Your task to perform on an android device: turn off data saver in the chrome app Image 0: 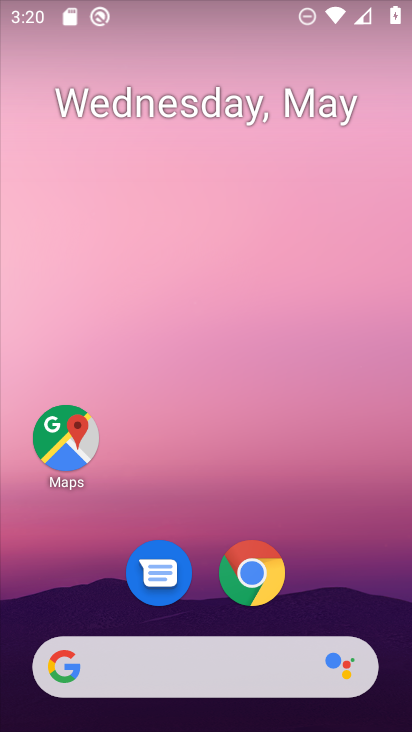
Step 0: click (243, 589)
Your task to perform on an android device: turn off data saver in the chrome app Image 1: 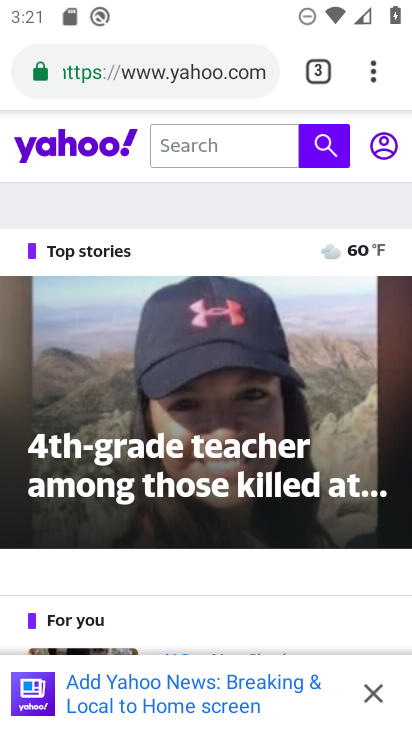
Step 1: click (372, 78)
Your task to perform on an android device: turn off data saver in the chrome app Image 2: 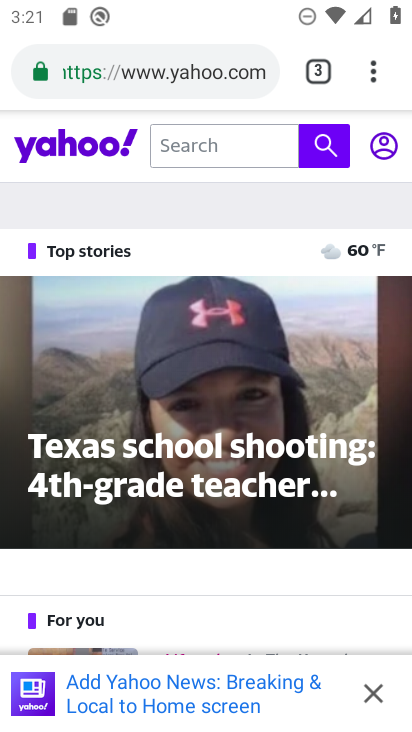
Step 2: click (383, 74)
Your task to perform on an android device: turn off data saver in the chrome app Image 3: 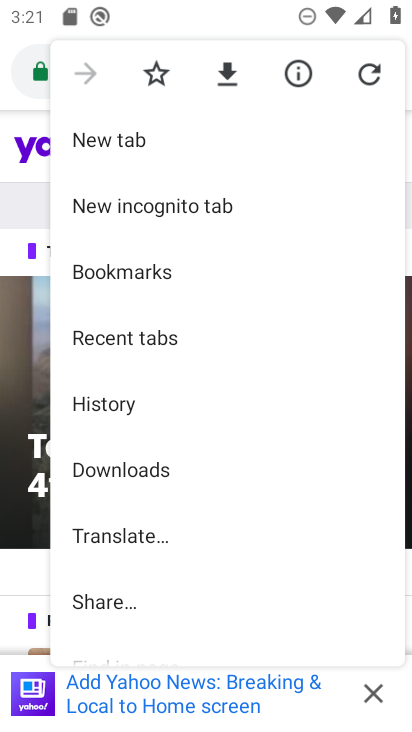
Step 3: drag from (158, 186) to (168, 128)
Your task to perform on an android device: turn off data saver in the chrome app Image 4: 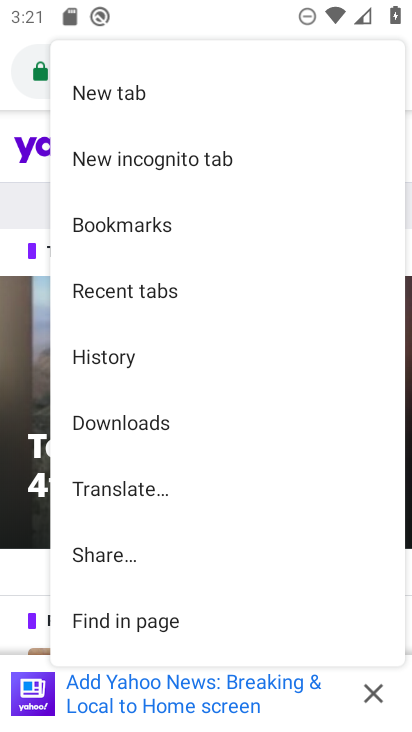
Step 4: drag from (132, 564) to (143, 174)
Your task to perform on an android device: turn off data saver in the chrome app Image 5: 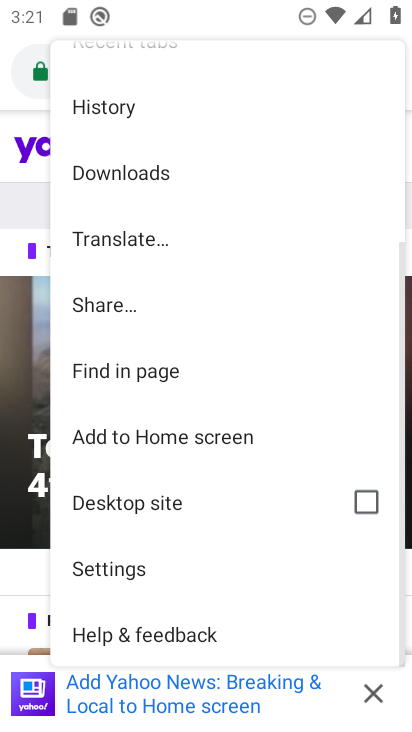
Step 5: click (159, 557)
Your task to perform on an android device: turn off data saver in the chrome app Image 6: 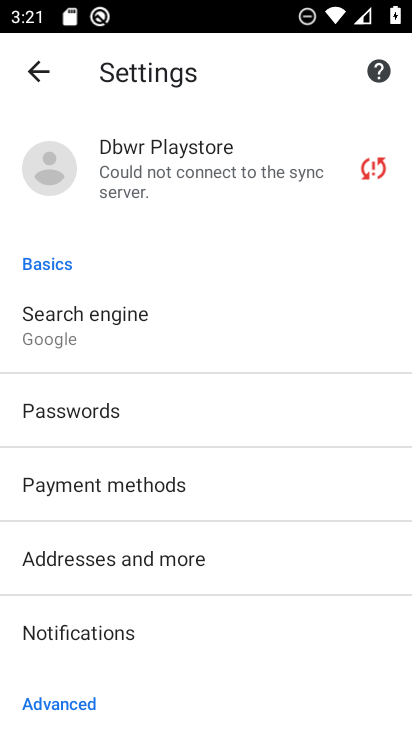
Step 6: drag from (148, 641) to (142, 198)
Your task to perform on an android device: turn off data saver in the chrome app Image 7: 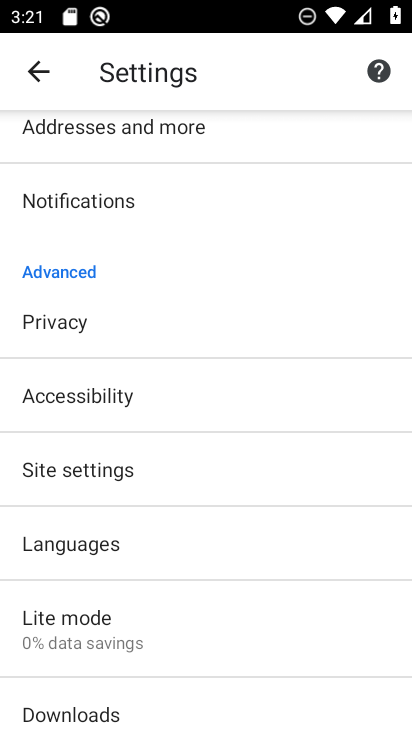
Step 7: click (143, 626)
Your task to perform on an android device: turn off data saver in the chrome app Image 8: 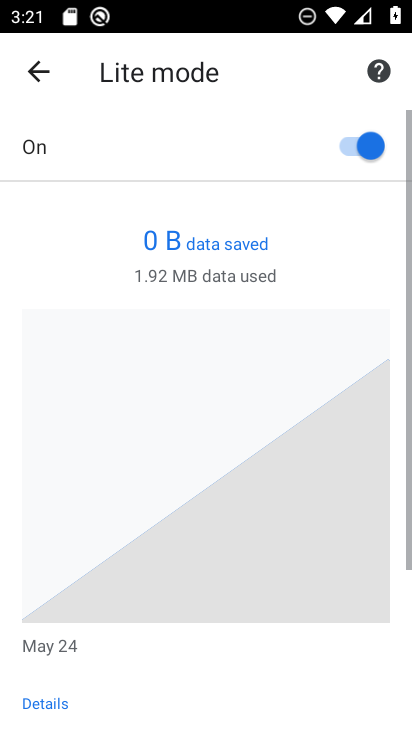
Step 8: click (368, 137)
Your task to perform on an android device: turn off data saver in the chrome app Image 9: 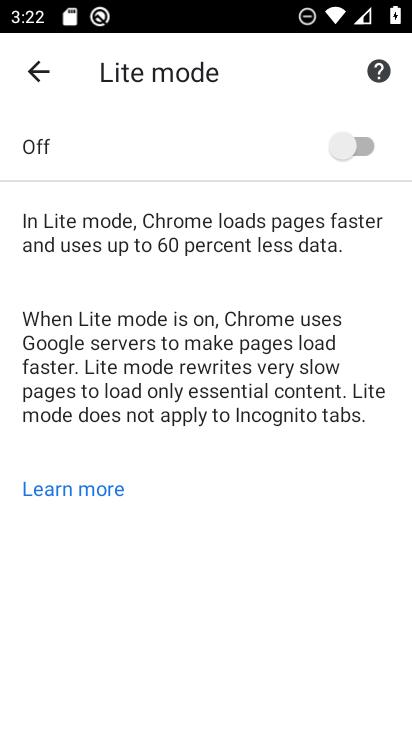
Step 9: task complete